Your task to perform on an android device: stop showing notifications on the lock screen Image 0: 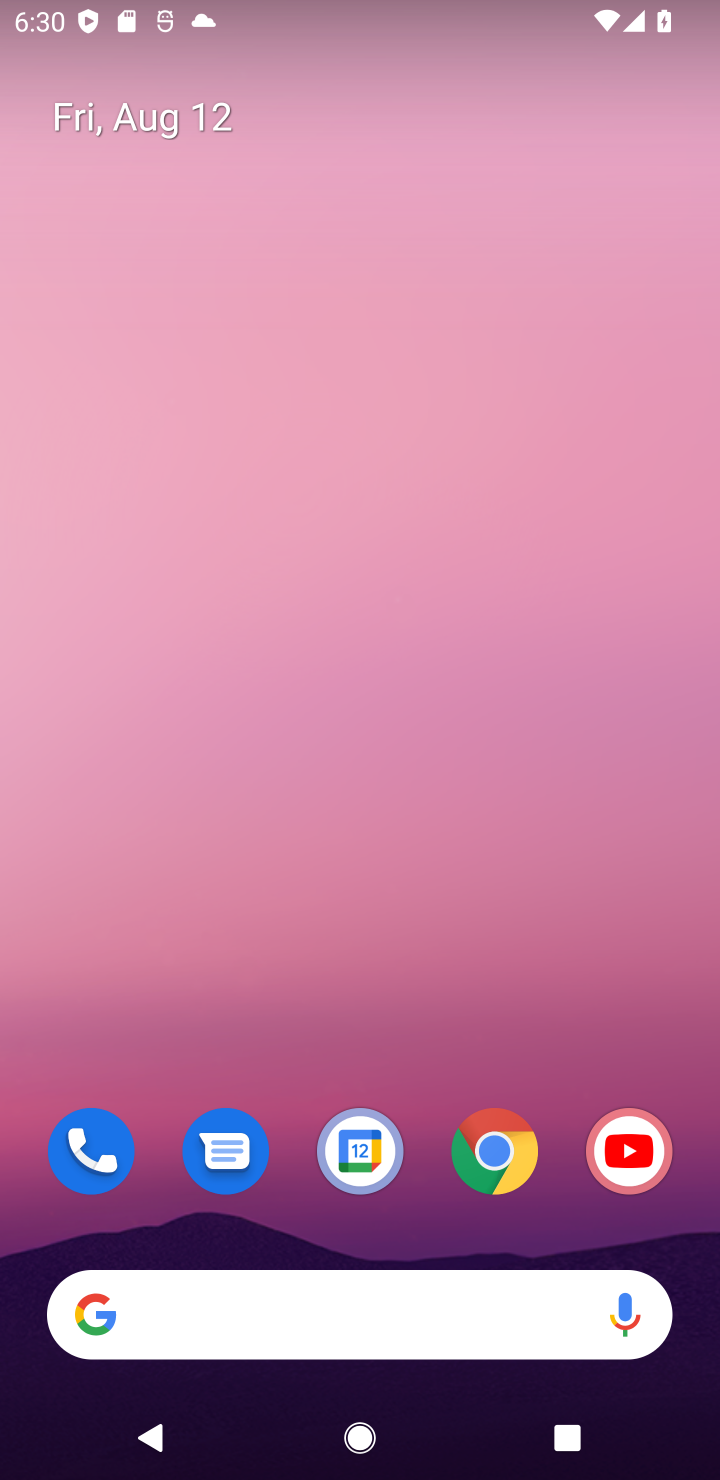
Step 0: drag from (418, 964) to (434, 112)
Your task to perform on an android device: stop showing notifications on the lock screen Image 1: 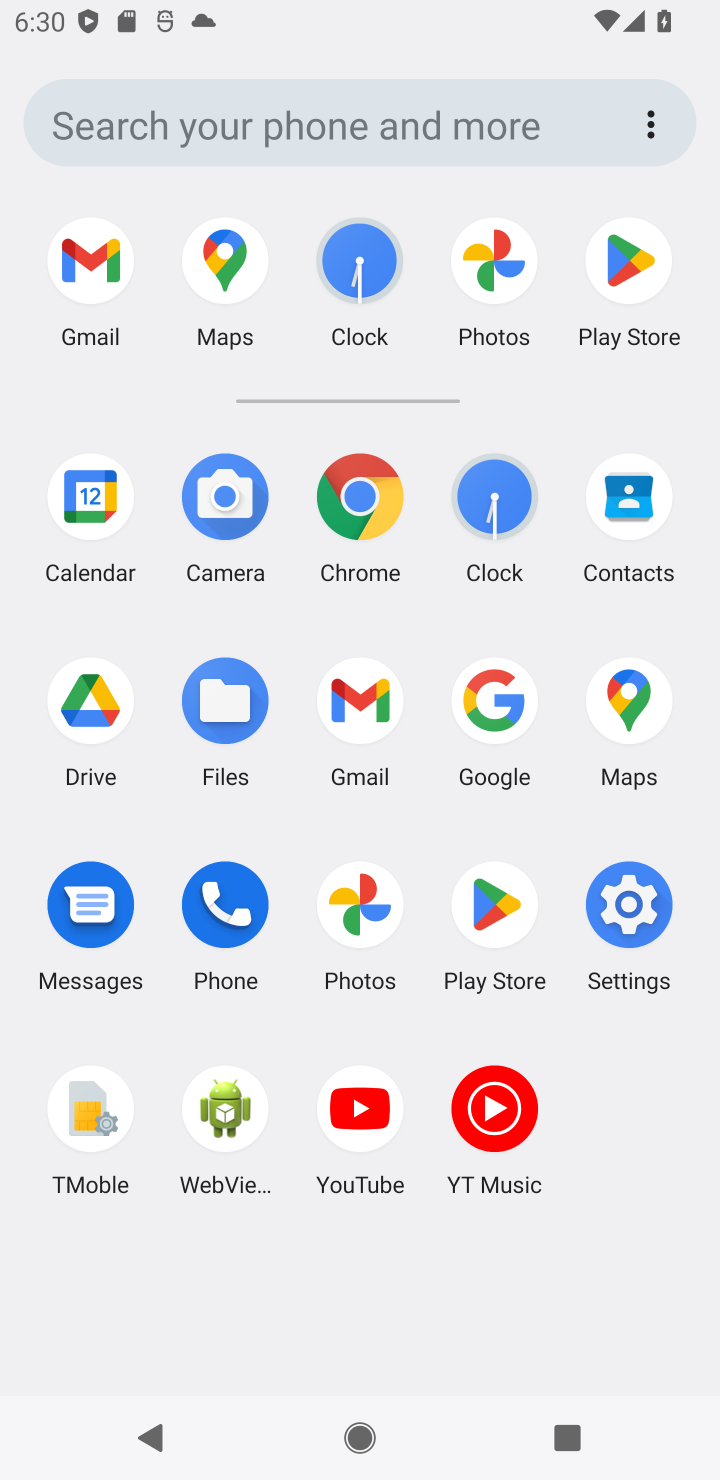
Step 1: click (635, 908)
Your task to perform on an android device: stop showing notifications on the lock screen Image 2: 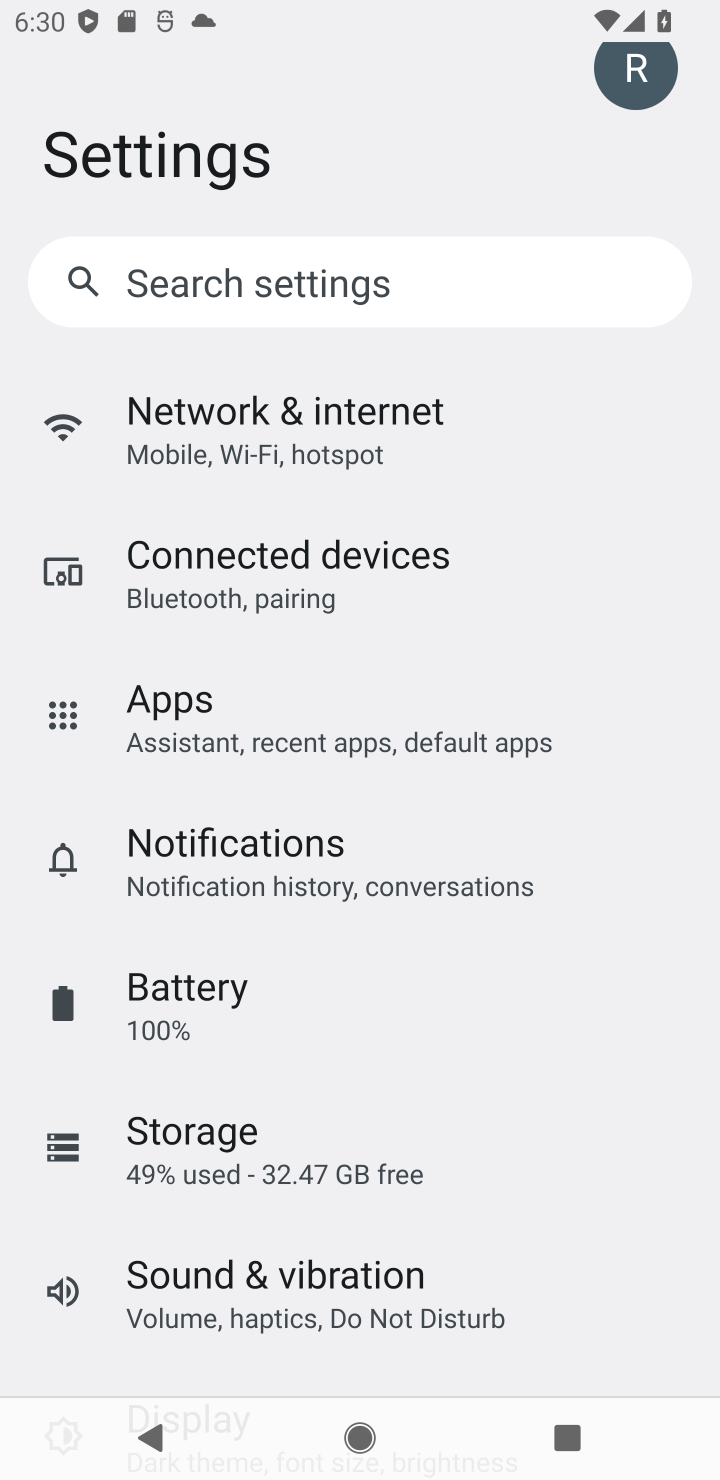
Step 2: click (335, 851)
Your task to perform on an android device: stop showing notifications on the lock screen Image 3: 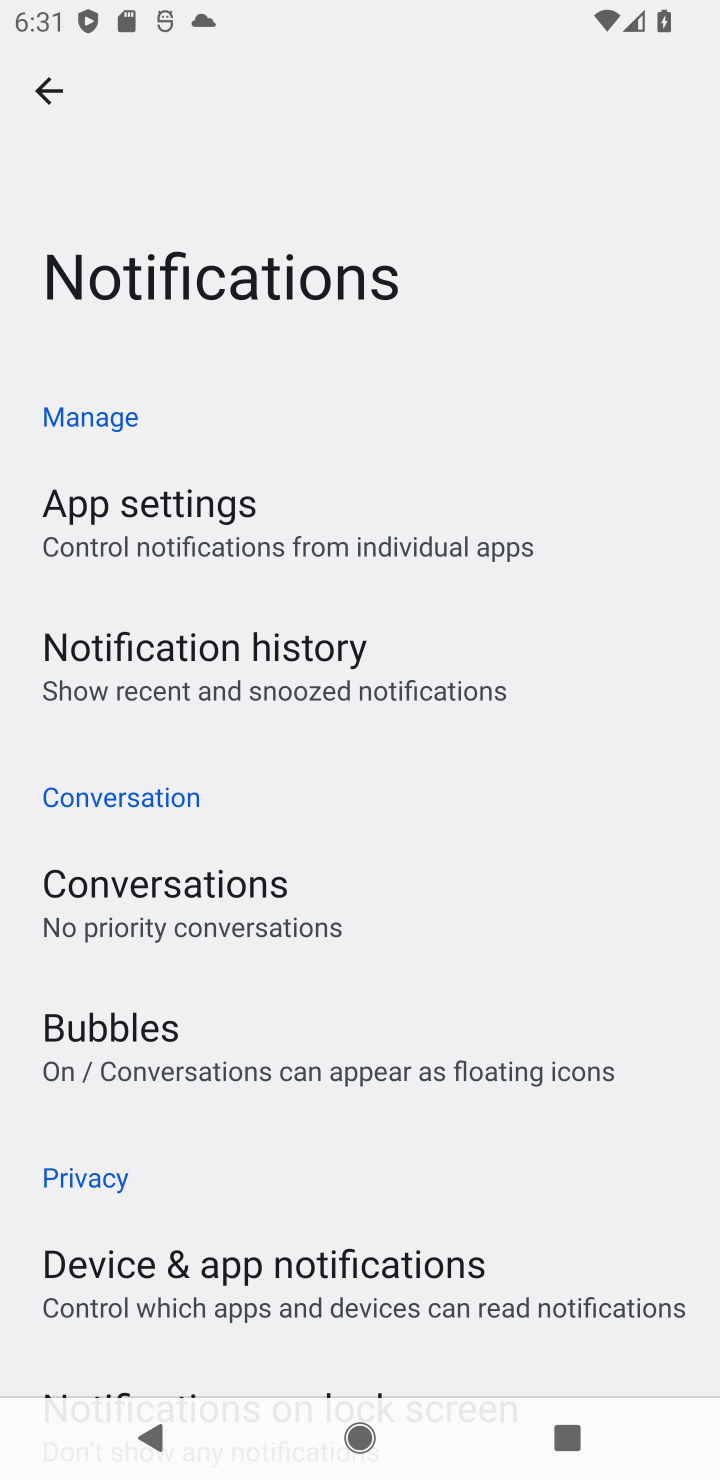
Step 3: click (371, 1271)
Your task to perform on an android device: stop showing notifications on the lock screen Image 4: 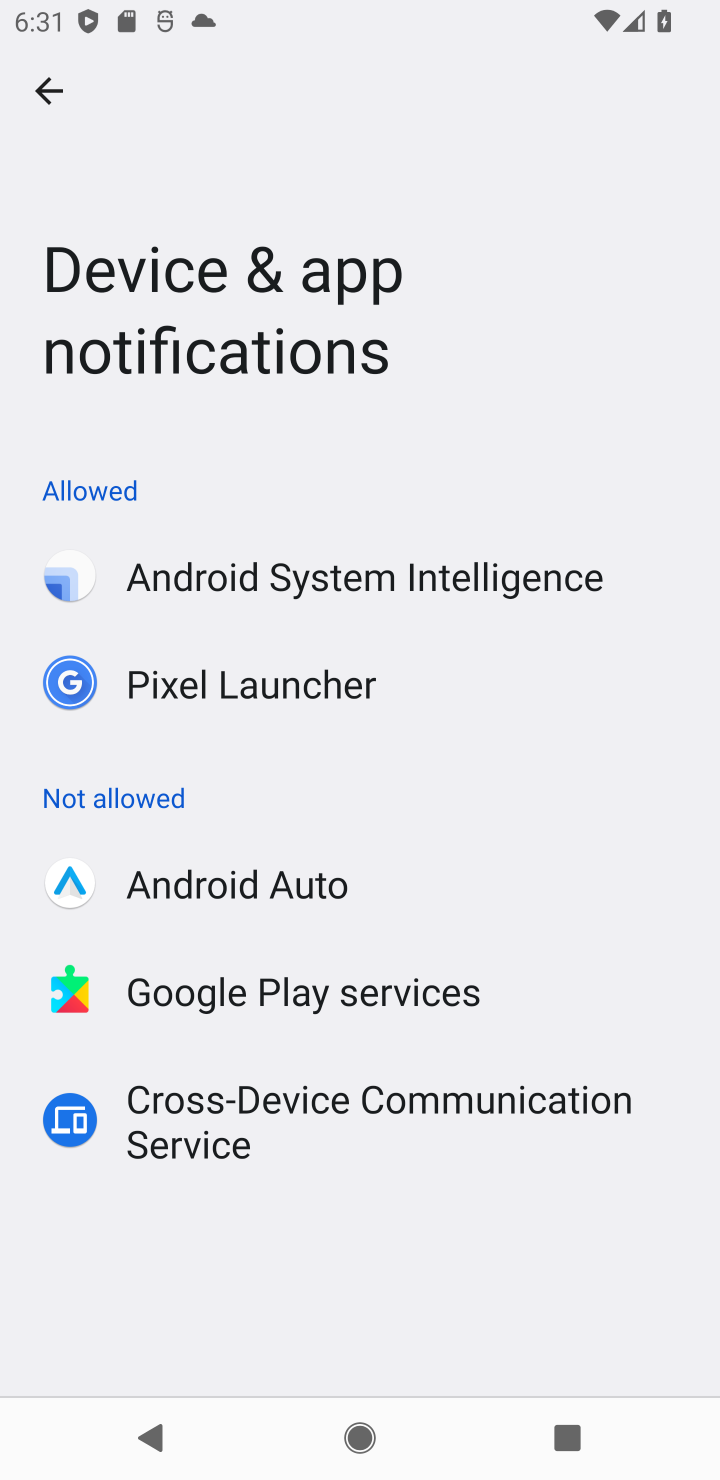
Step 4: press back button
Your task to perform on an android device: stop showing notifications on the lock screen Image 5: 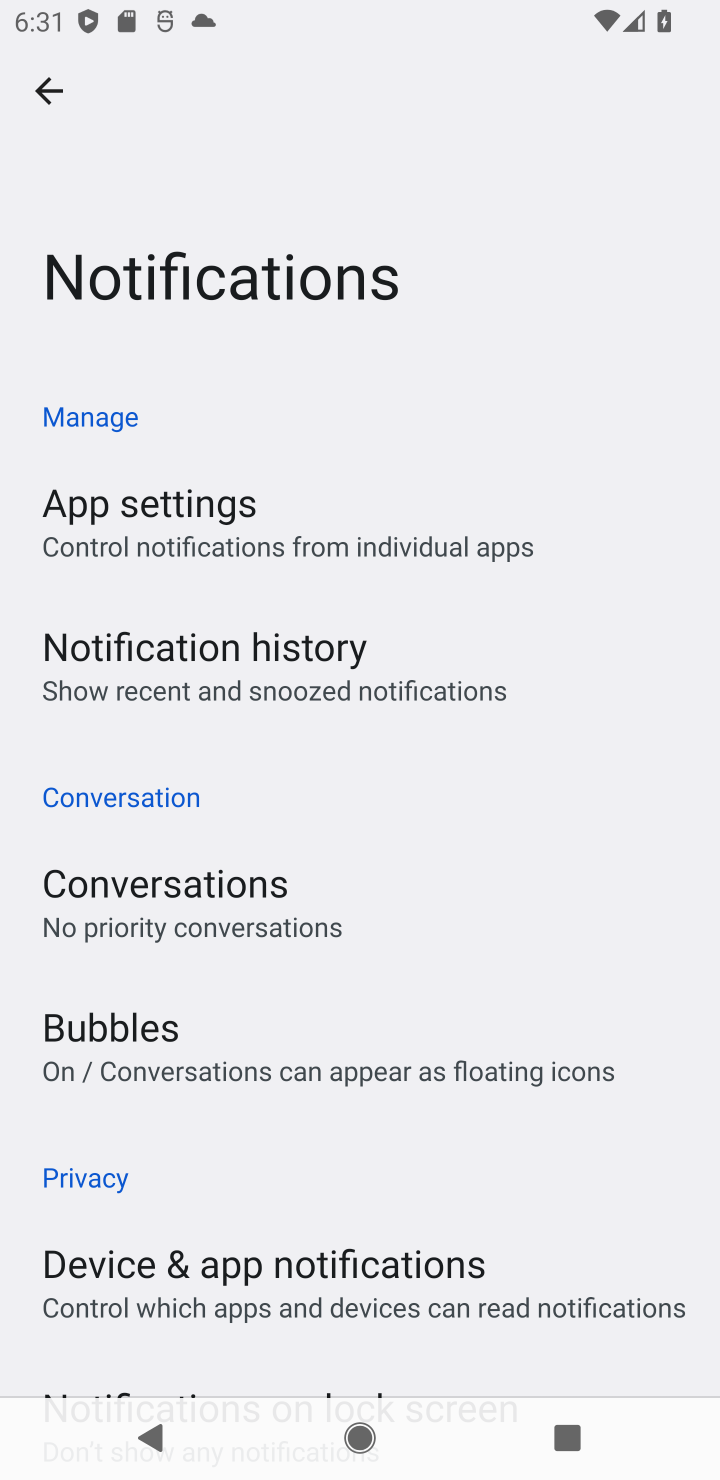
Step 5: drag from (522, 984) to (545, 117)
Your task to perform on an android device: stop showing notifications on the lock screen Image 6: 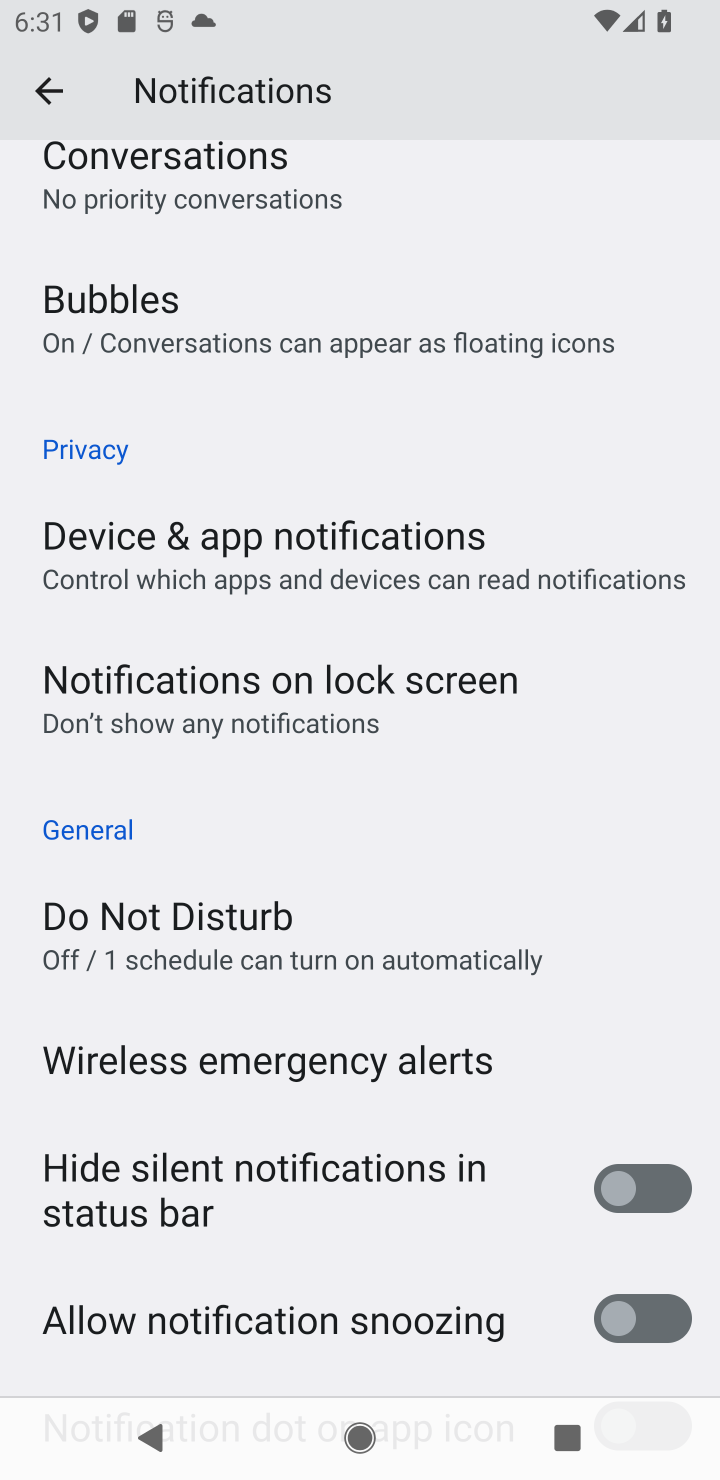
Step 6: click (434, 531)
Your task to perform on an android device: stop showing notifications on the lock screen Image 7: 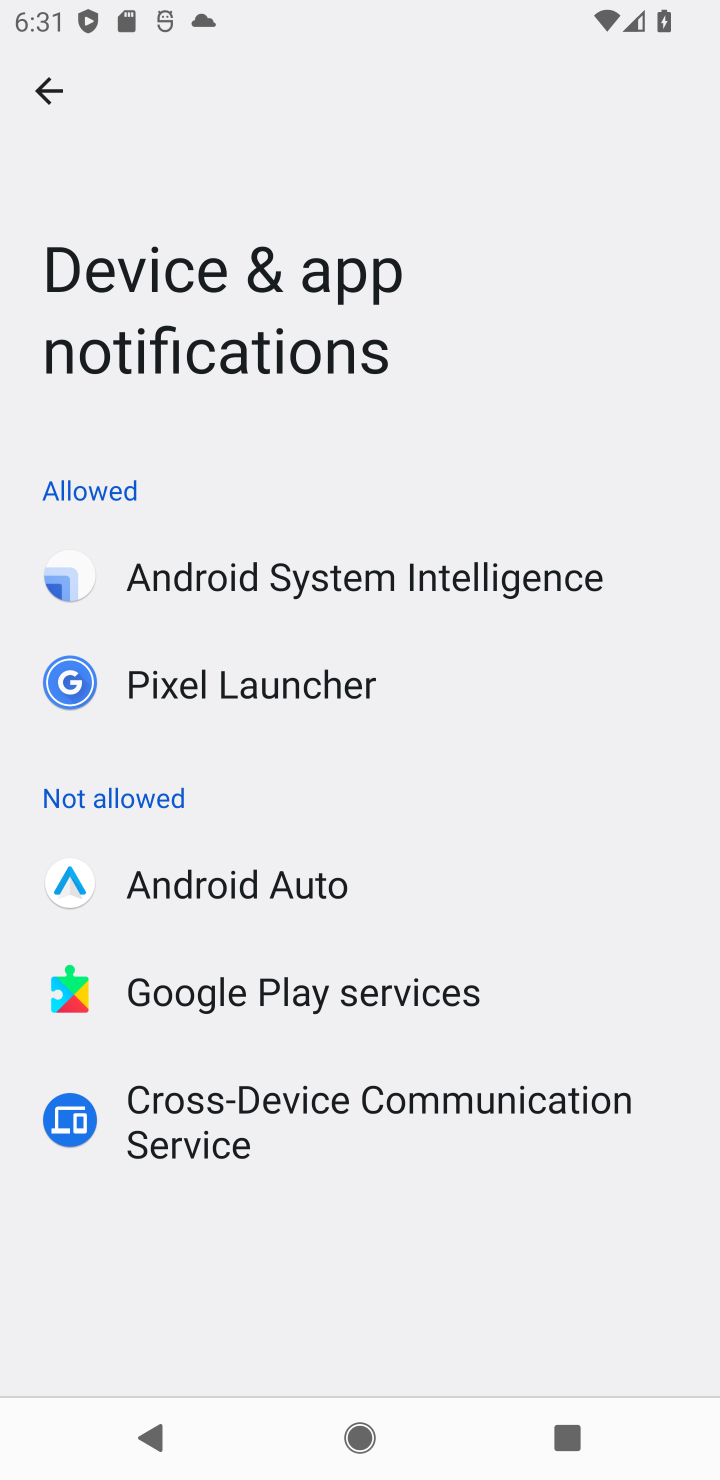
Step 7: click (23, 84)
Your task to perform on an android device: stop showing notifications on the lock screen Image 8: 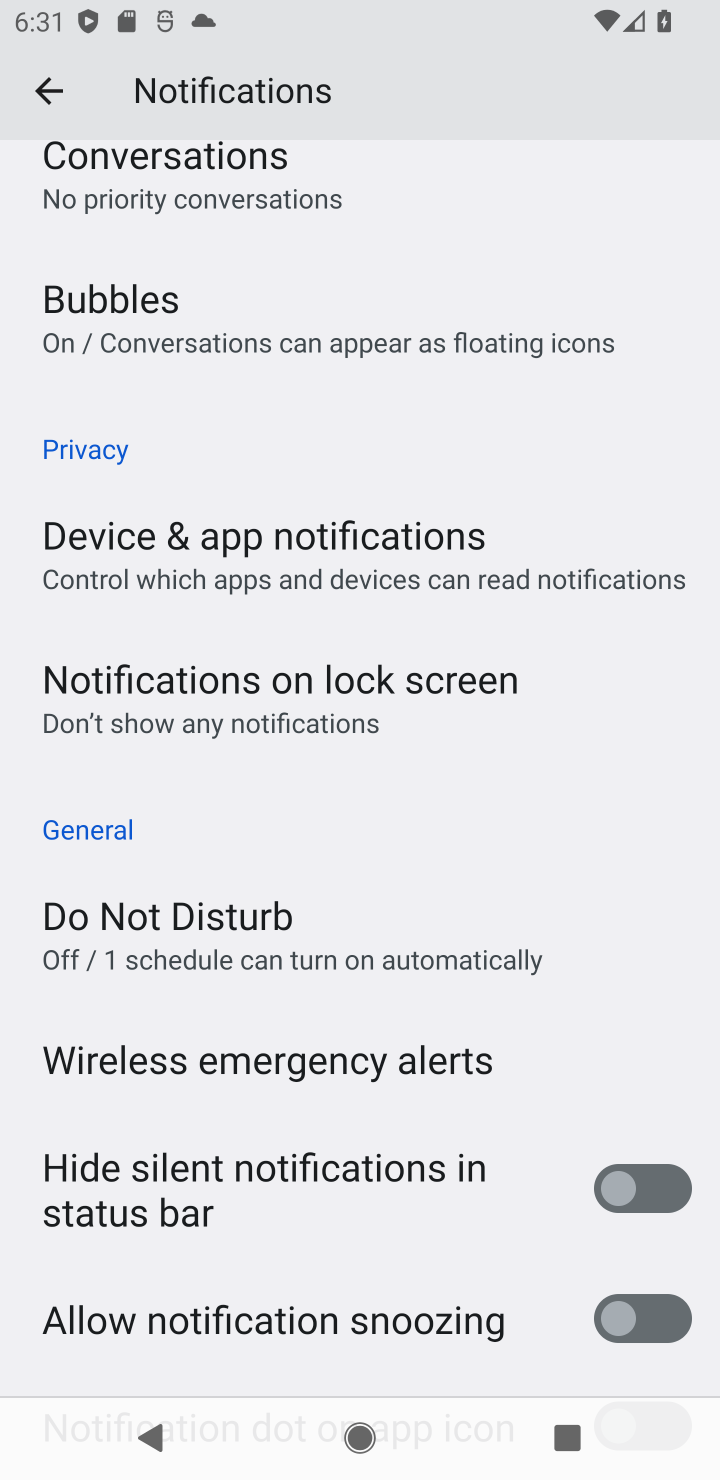
Step 8: drag from (658, 824) to (487, 1)
Your task to perform on an android device: stop showing notifications on the lock screen Image 9: 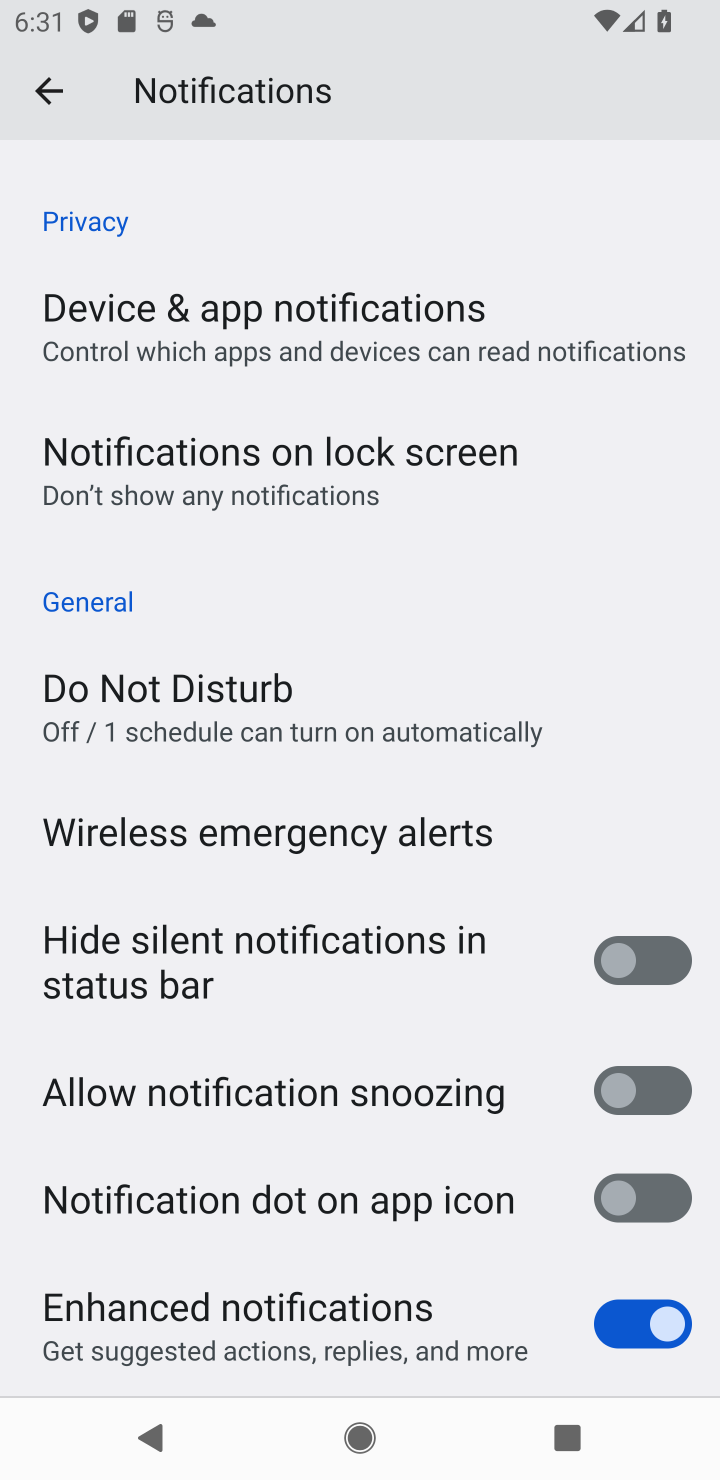
Step 9: click (253, 464)
Your task to perform on an android device: stop showing notifications on the lock screen Image 10: 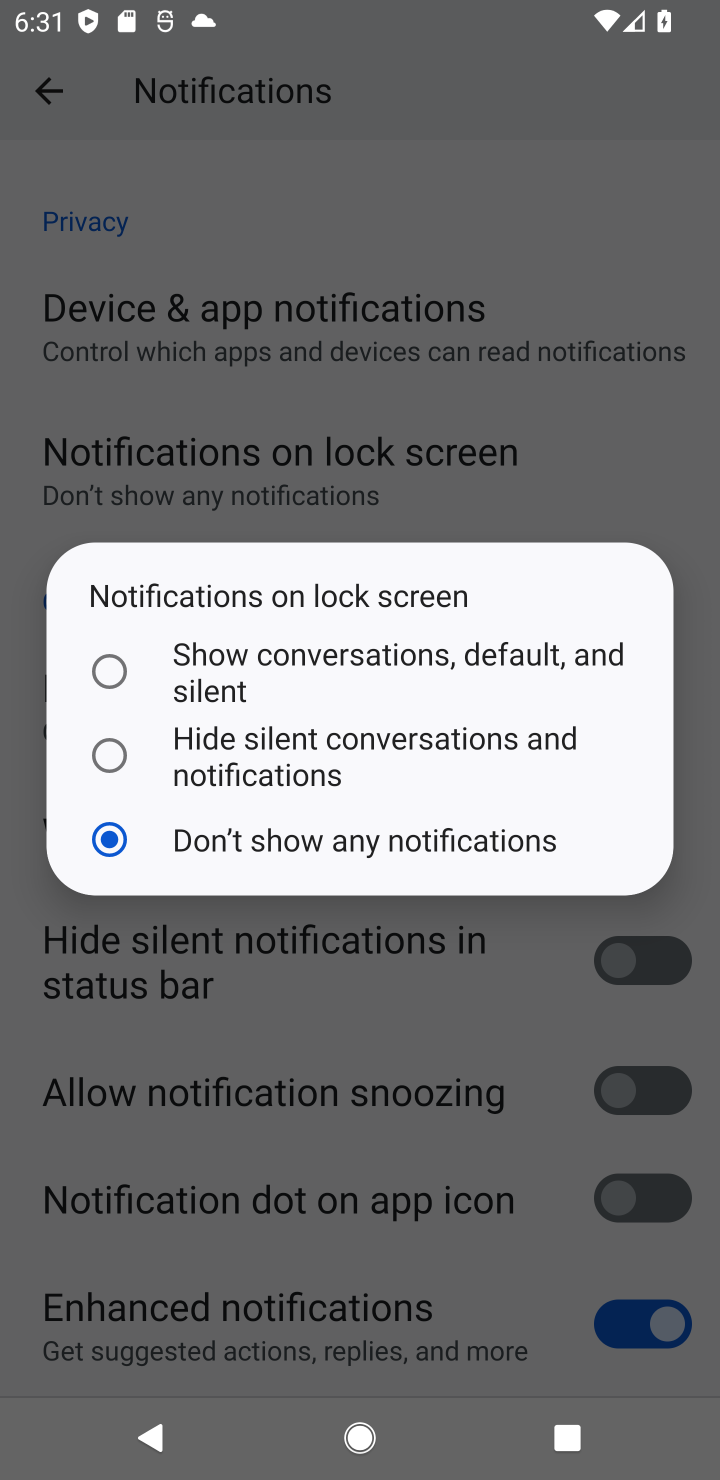
Step 10: task complete